Your task to perform on an android device: Open Google Chrome and click the shortcut for Amazon.com Image 0: 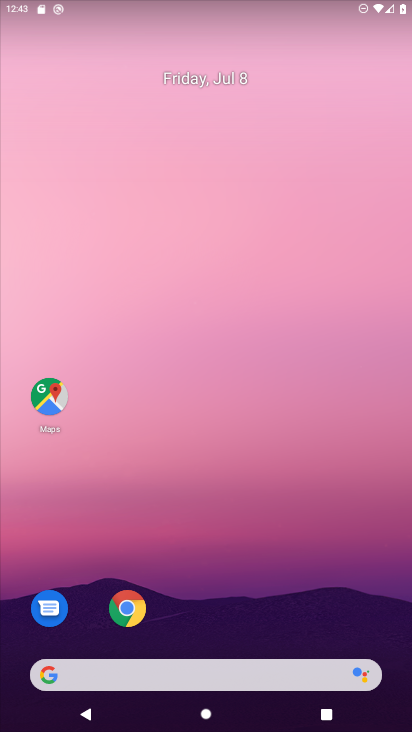
Step 0: click (129, 611)
Your task to perform on an android device: Open Google Chrome and click the shortcut for Amazon.com Image 1: 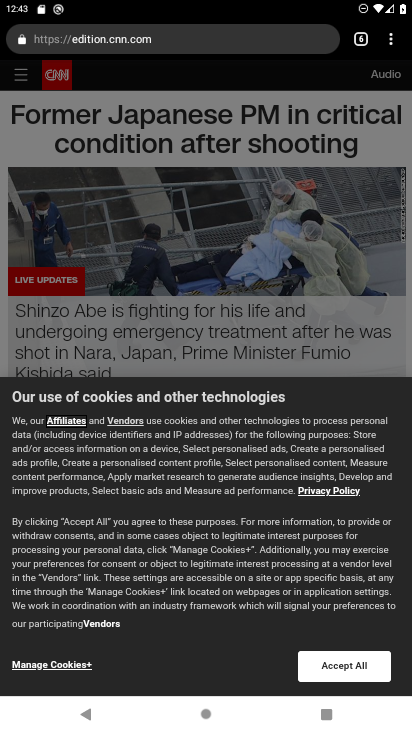
Step 1: click (392, 43)
Your task to perform on an android device: Open Google Chrome and click the shortcut for Amazon.com Image 2: 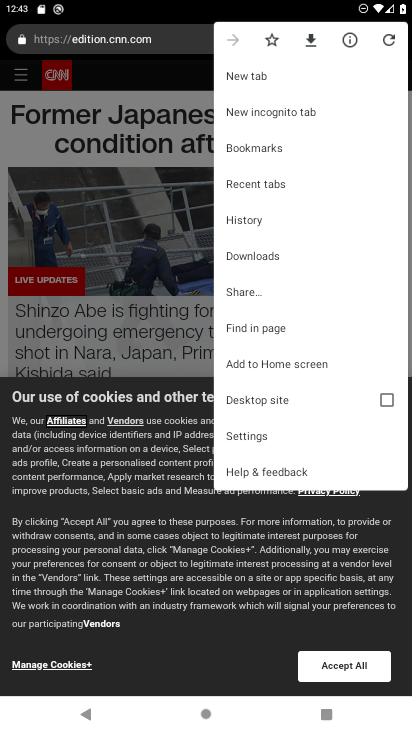
Step 2: click (253, 72)
Your task to perform on an android device: Open Google Chrome and click the shortcut for Amazon.com Image 3: 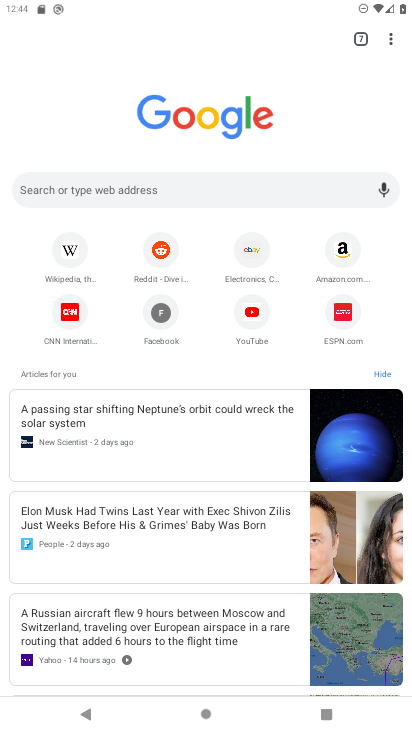
Step 3: click (345, 257)
Your task to perform on an android device: Open Google Chrome and click the shortcut for Amazon.com Image 4: 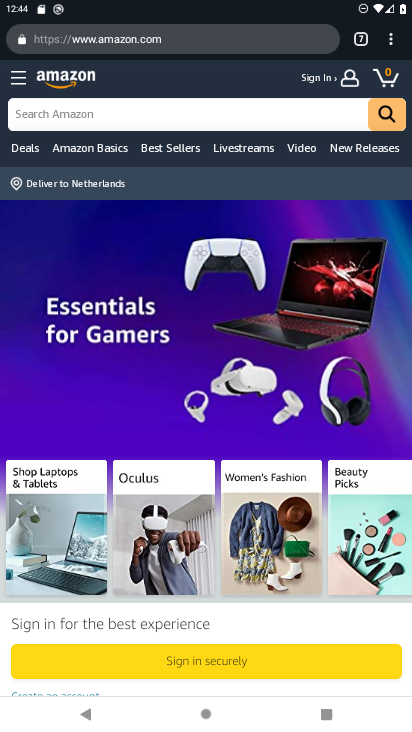
Step 4: task complete